Your task to perform on an android device: turn on location history Image 0: 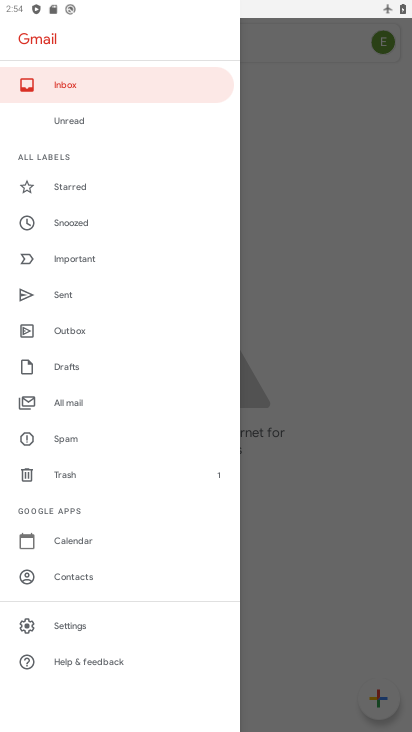
Step 0: press back button
Your task to perform on an android device: turn on location history Image 1: 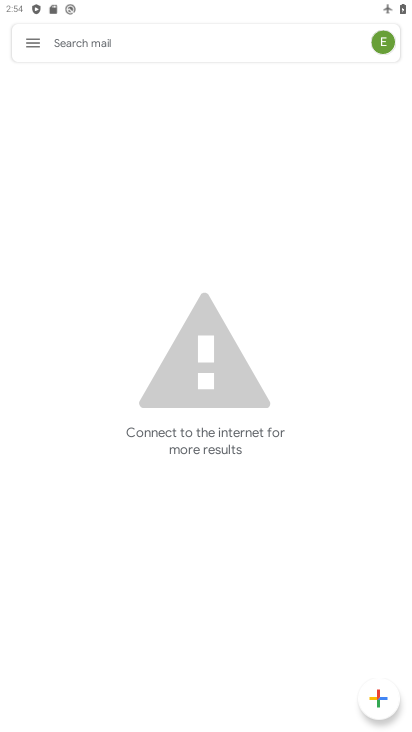
Step 1: press home button
Your task to perform on an android device: turn on location history Image 2: 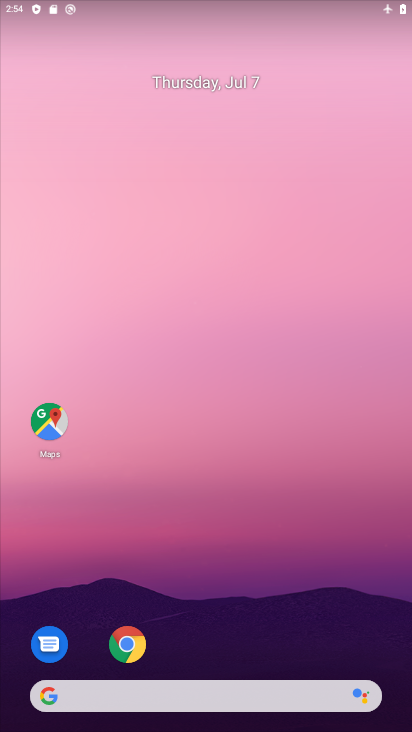
Step 2: drag from (218, 366) to (185, 164)
Your task to perform on an android device: turn on location history Image 3: 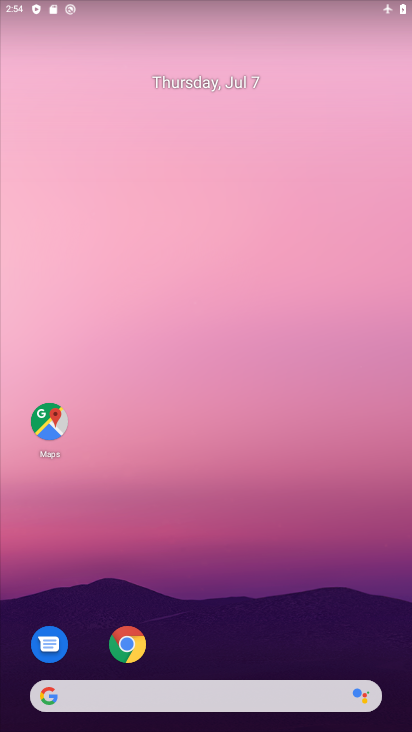
Step 3: drag from (254, 709) to (92, 129)
Your task to perform on an android device: turn on location history Image 4: 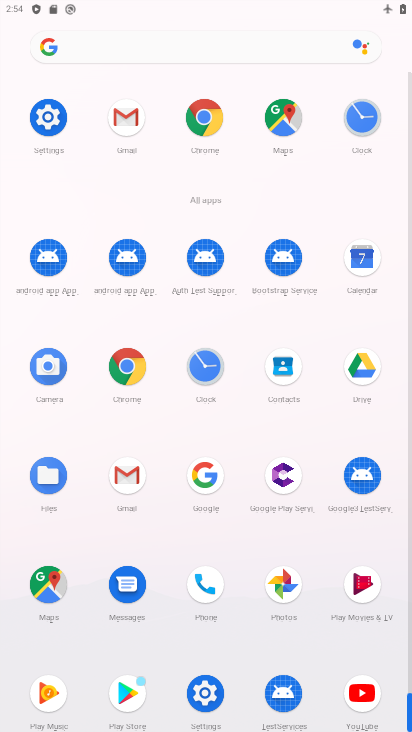
Step 4: click (211, 701)
Your task to perform on an android device: turn on location history Image 5: 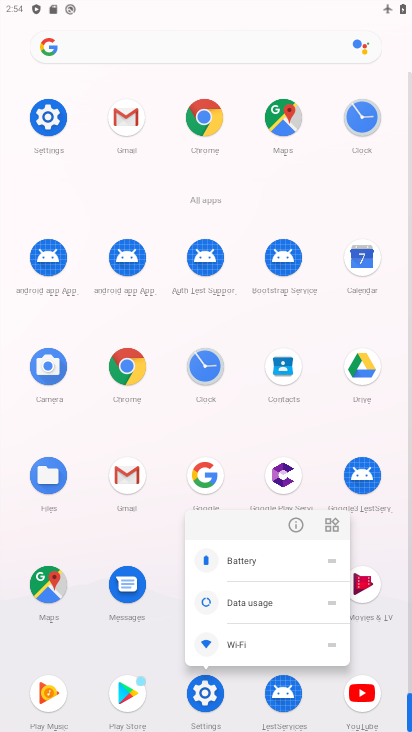
Step 5: click (205, 687)
Your task to perform on an android device: turn on location history Image 6: 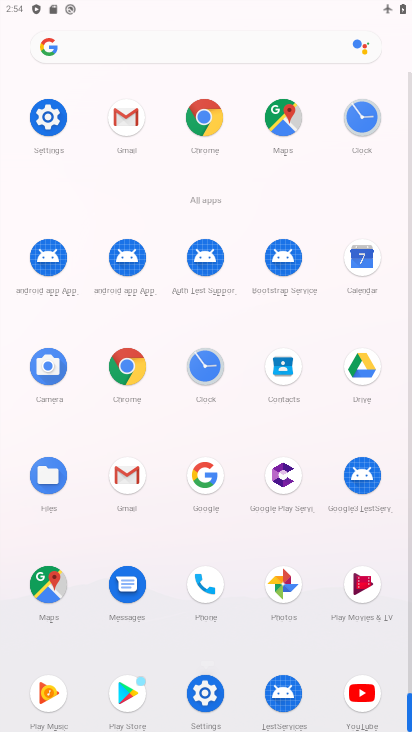
Step 6: click (205, 687)
Your task to perform on an android device: turn on location history Image 7: 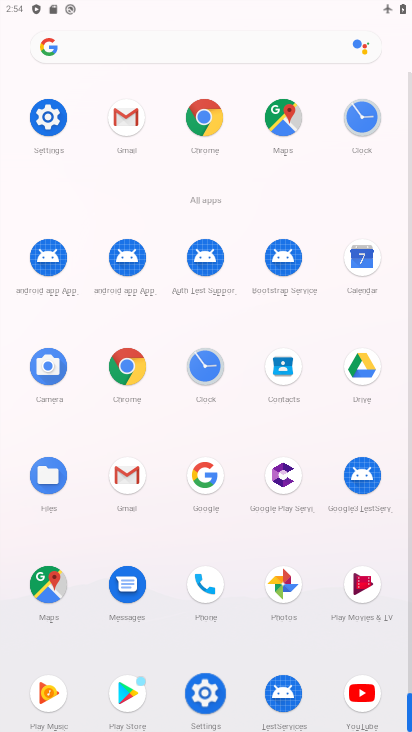
Step 7: click (206, 687)
Your task to perform on an android device: turn on location history Image 8: 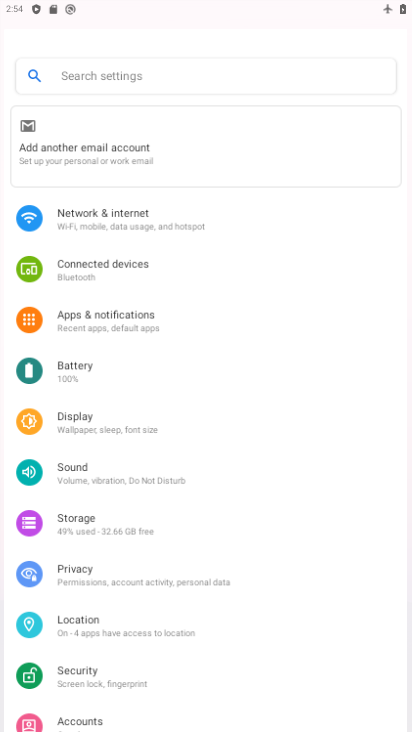
Step 8: click (209, 688)
Your task to perform on an android device: turn on location history Image 9: 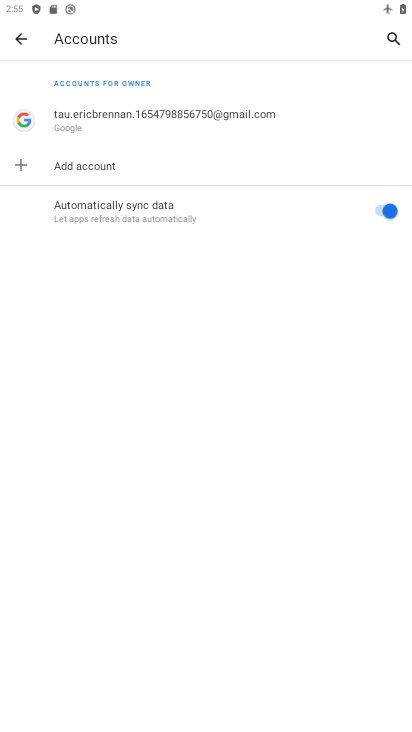
Step 9: click (14, 21)
Your task to perform on an android device: turn on location history Image 10: 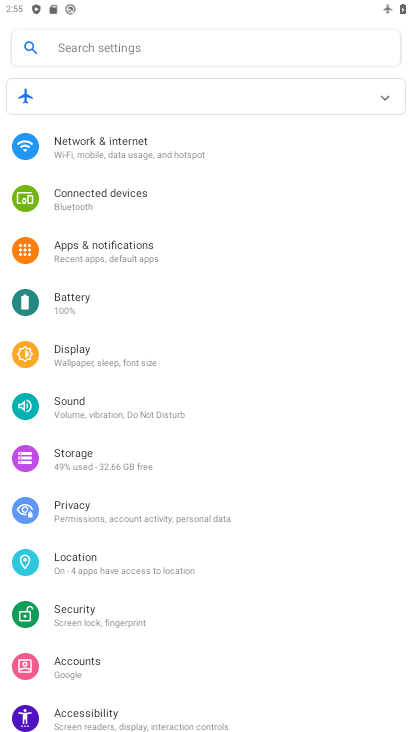
Step 10: click (98, 557)
Your task to perform on an android device: turn on location history Image 11: 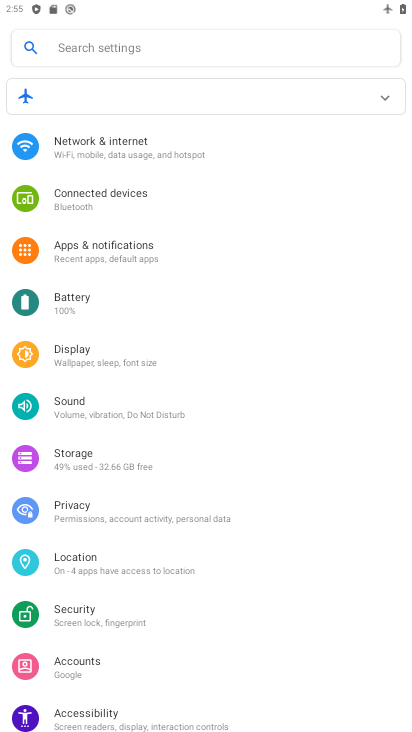
Step 11: click (95, 558)
Your task to perform on an android device: turn on location history Image 12: 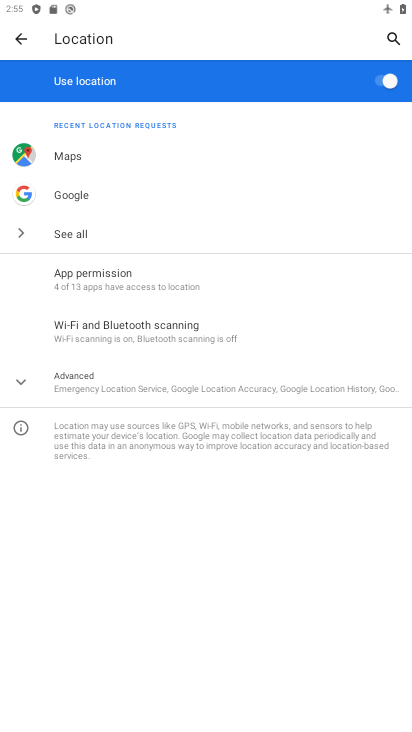
Step 12: click (81, 377)
Your task to perform on an android device: turn on location history Image 13: 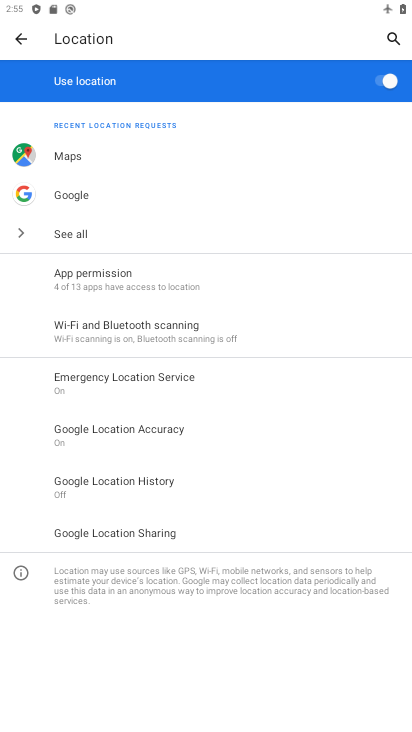
Step 13: click (108, 480)
Your task to perform on an android device: turn on location history Image 14: 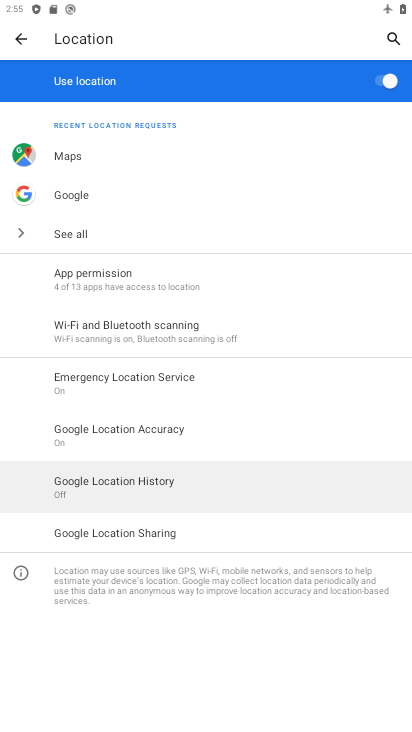
Step 14: click (112, 480)
Your task to perform on an android device: turn on location history Image 15: 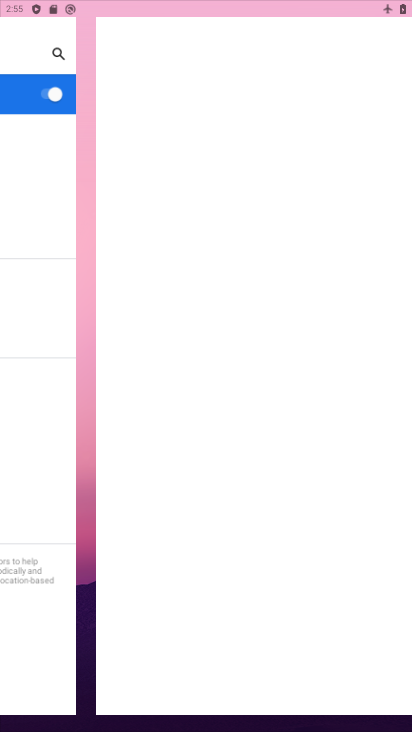
Step 15: click (113, 478)
Your task to perform on an android device: turn on location history Image 16: 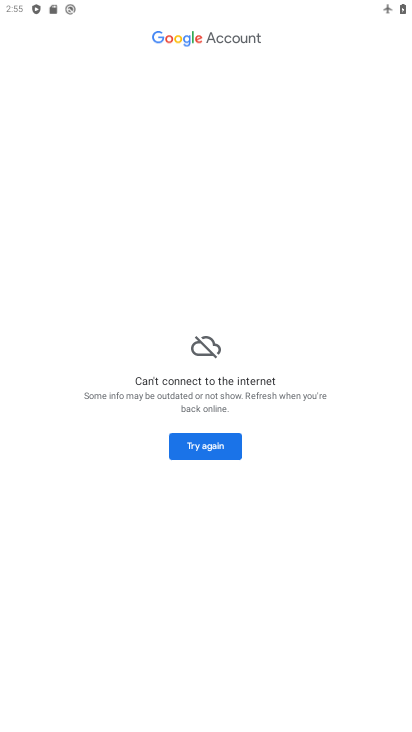
Step 16: task complete